Your task to perform on an android device: Open calendar and show me the second week of next month Image 0: 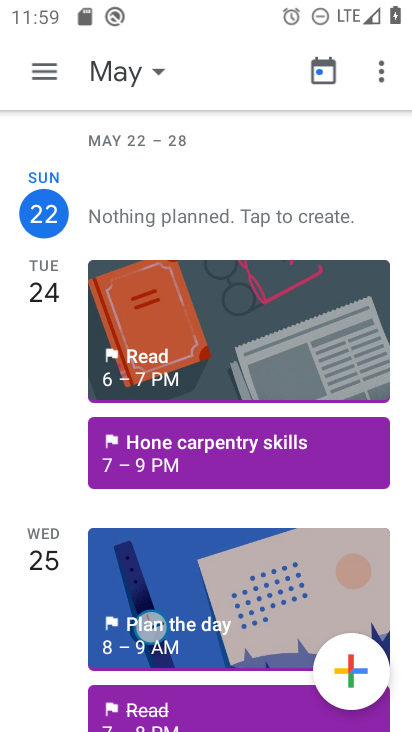
Step 0: click (108, 76)
Your task to perform on an android device: Open calendar and show me the second week of next month Image 1: 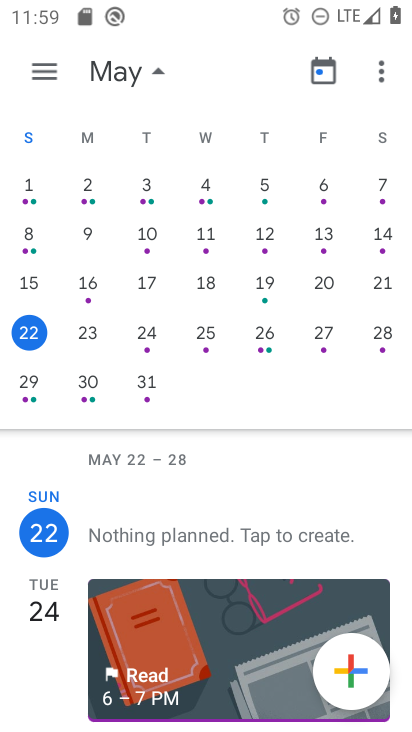
Step 1: drag from (359, 341) to (23, 389)
Your task to perform on an android device: Open calendar and show me the second week of next month Image 2: 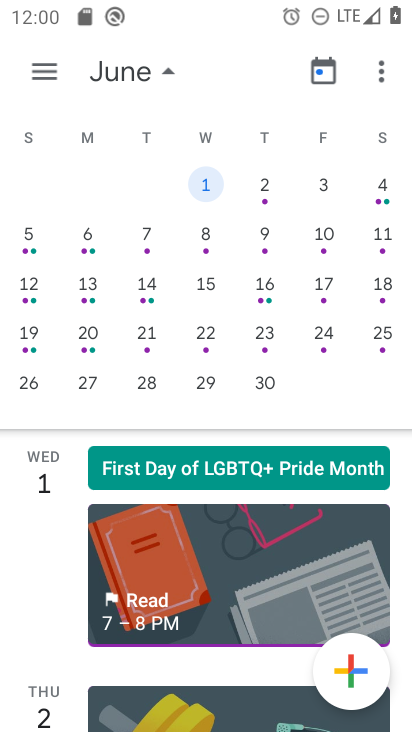
Step 2: click (47, 251)
Your task to perform on an android device: Open calendar and show me the second week of next month Image 3: 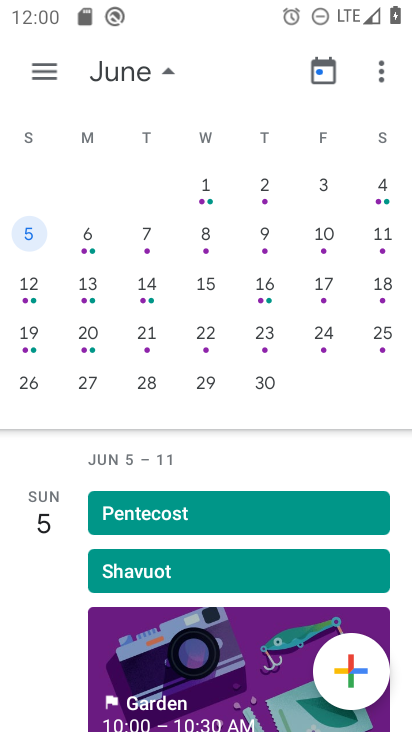
Step 3: task complete